Your task to perform on an android device: Go to Reddit.com Image 0: 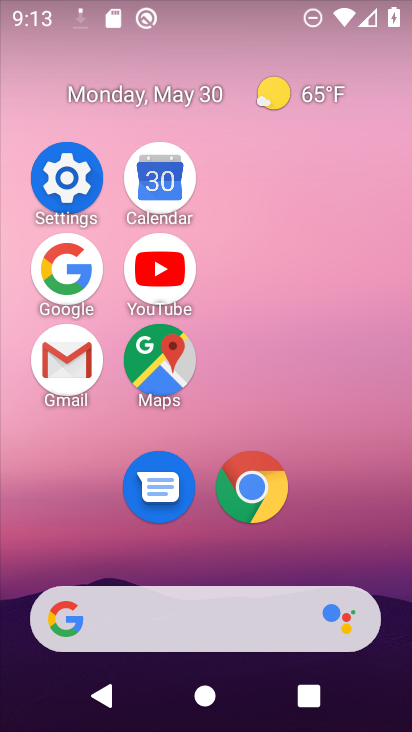
Step 0: click (268, 484)
Your task to perform on an android device: Go to Reddit.com Image 1: 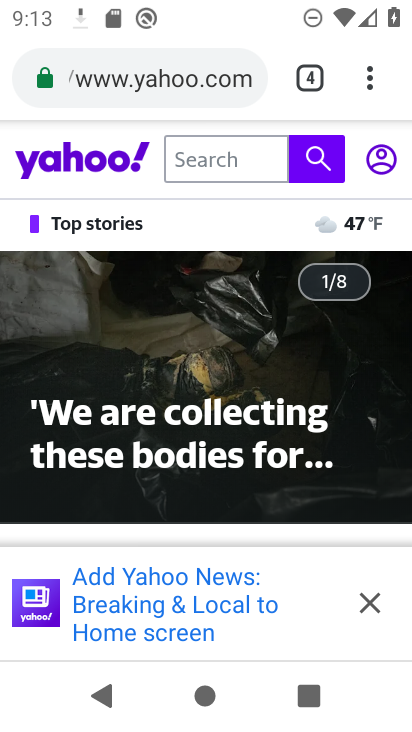
Step 1: click (314, 69)
Your task to perform on an android device: Go to Reddit.com Image 2: 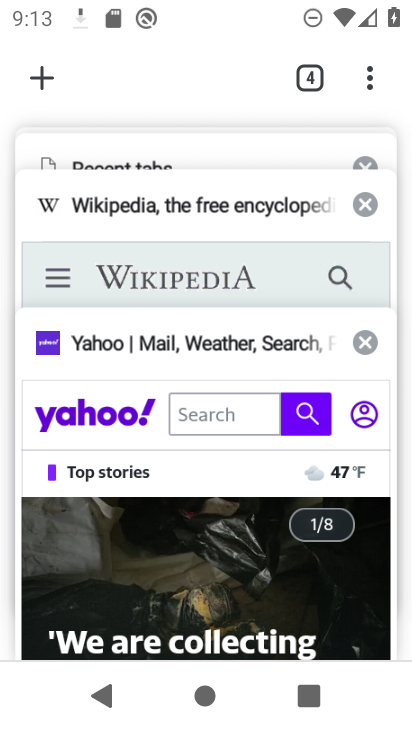
Step 2: click (59, 72)
Your task to perform on an android device: Go to Reddit.com Image 3: 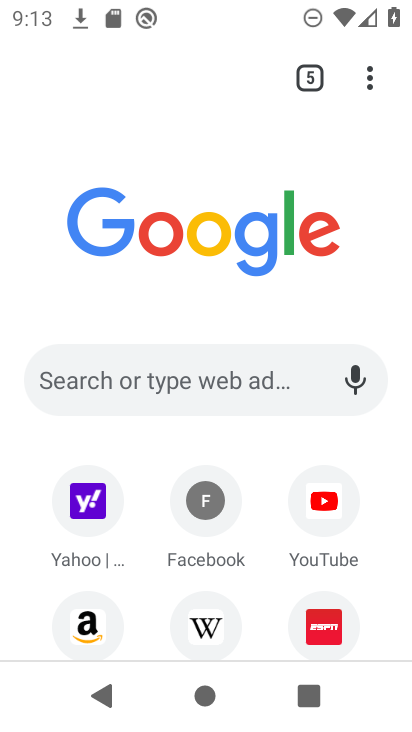
Step 3: click (220, 383)
Your task to perform on an android device: Go to Reddit.com Image 4: 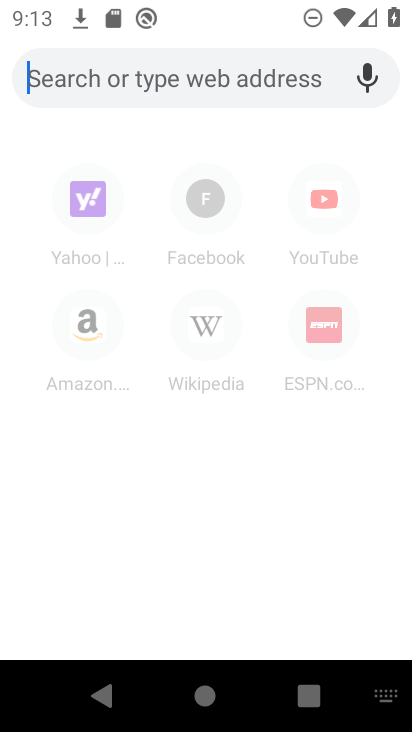
Step 4: type "reddit"
Your task to perform on an android device: Go to Reddit.com Image 5: 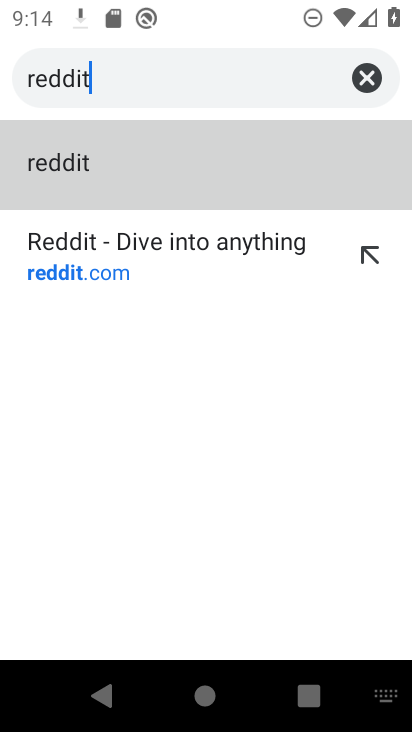
Step 5: click (113, 272)
Your task to perform on an android device: Go to Reddit.com Image 6: 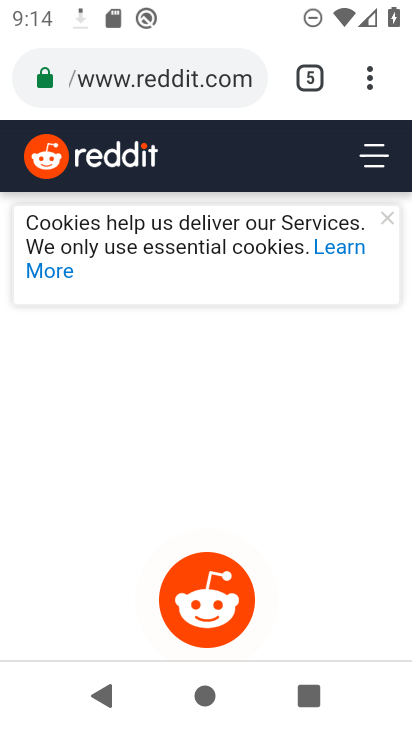
Step 6: task complete